Your task to perform on an android device: turn on wifi Image 0: 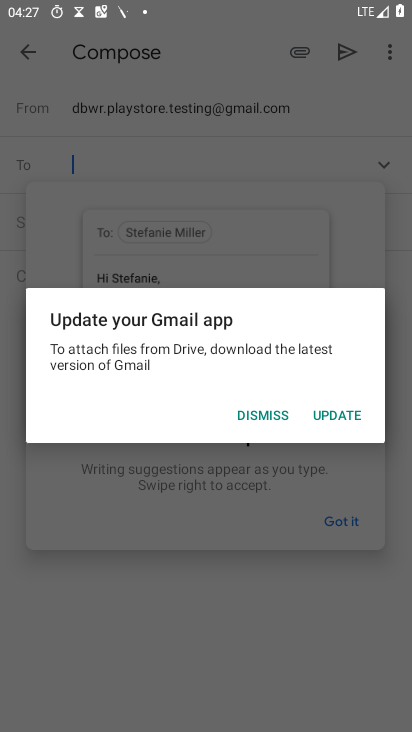
Step 0: press home button
Your task to perform on an android device: turn on wifi Image 1: 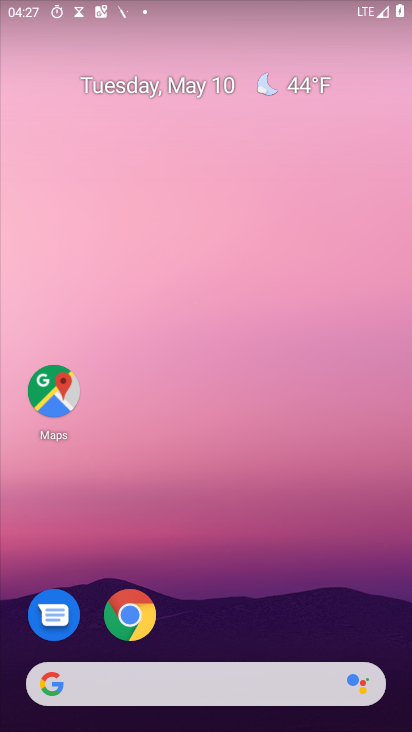
Step 1: drag from (246, 662) to (296, 10)
Your task to perform on an android device: turn on wifi Image 2: 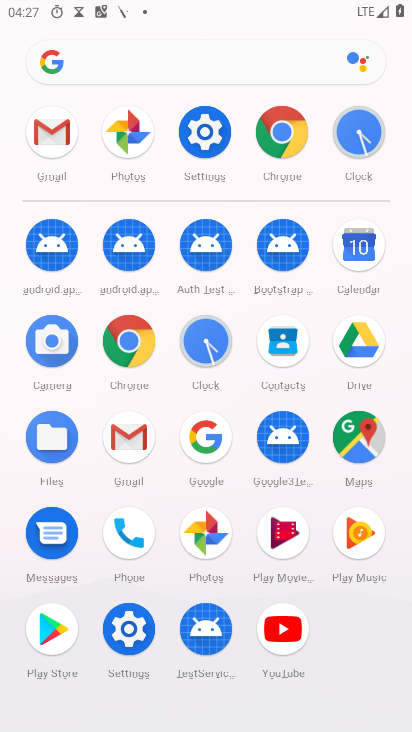
Step 2: click (140, 626)
Your task to perform on an android device: turn on wifi Image 3: 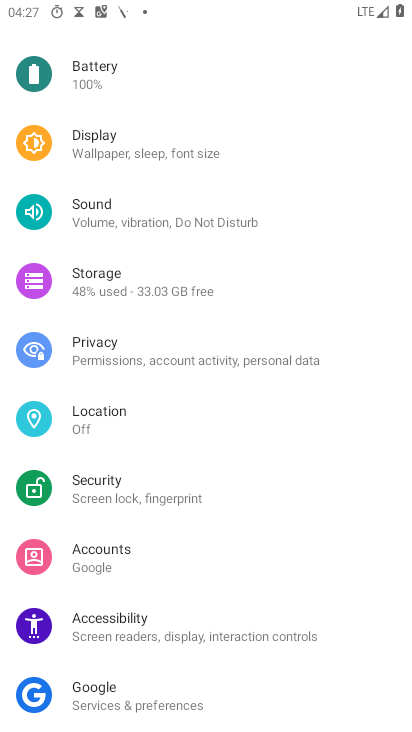
Step 3: drag from (177, 135) to (238, 617)
Your task to perform on an android device: turn on wifi Image 4: 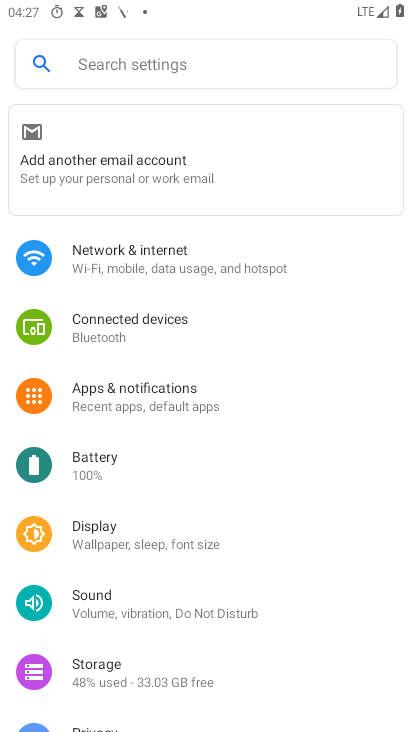
Step 4: click (153, 274)
Your task to perform on an android device: turn on wifi Image 5: 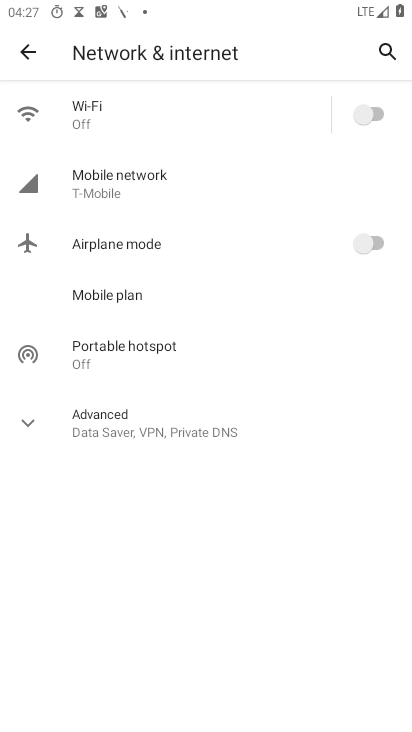
Step 5: click (144, 120)
Your task to perform on an android device: turn on wifi Image 6: 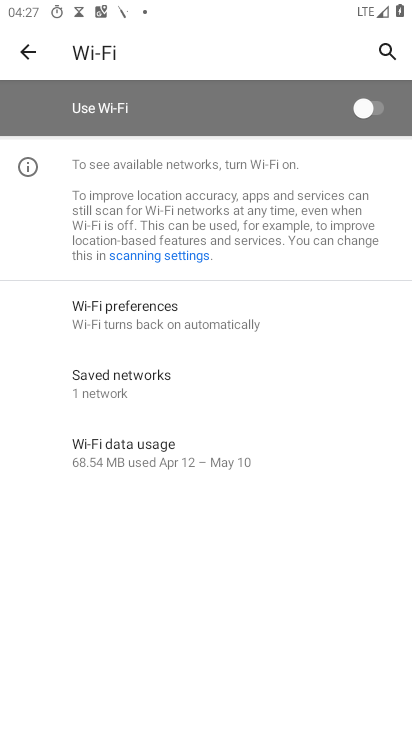
Step 6: click (368, 104)
Your task to perform on an android device: turn on wifi Image 7: 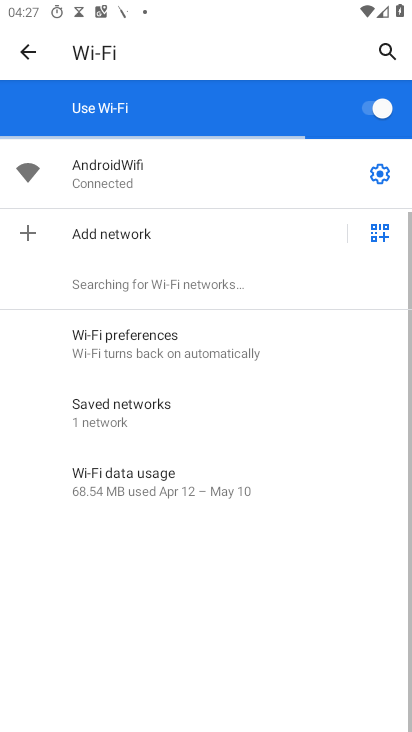
Step 7: task complete